Your task to perform on an android device: check data usage Image 0: 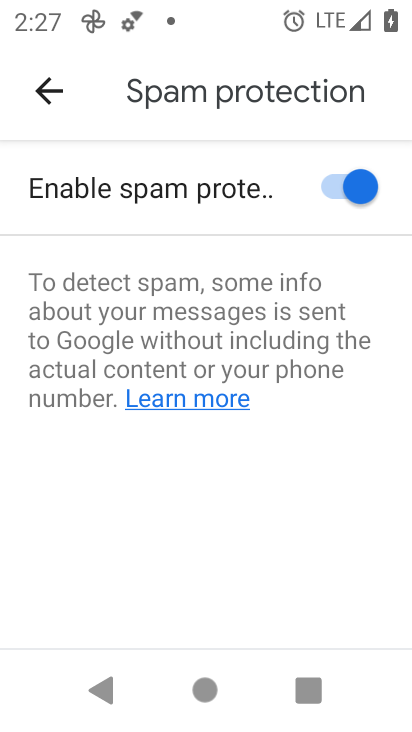
Step 0: press home button
Your task to perform on an android device: check data usage Image 1: 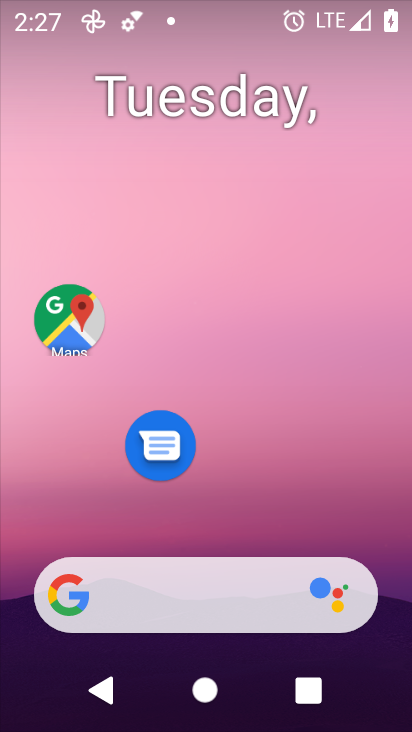
Step 1: drag from (263, 466) to (204, 114)
Your task to perform on an android device: check data usage Image 2: 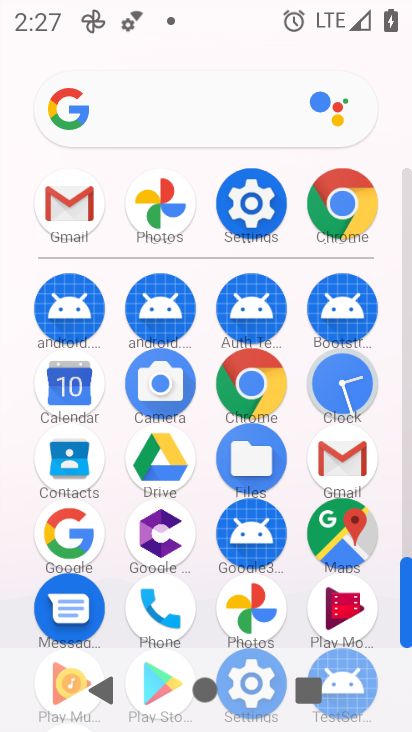
Step 2: click (251, 208)
Your task to perform on an android device: check data usage Image 3: 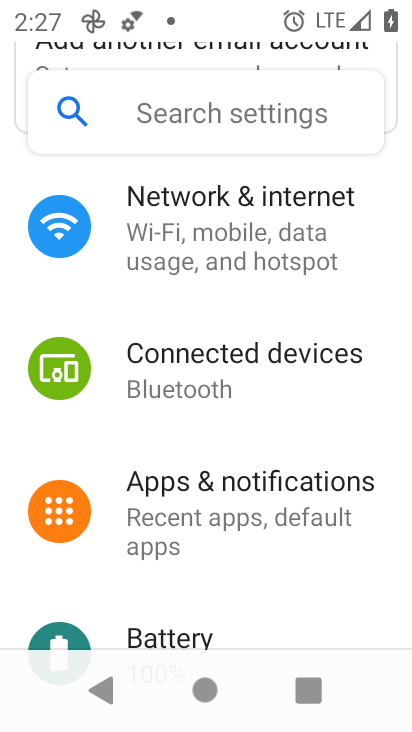
Step 3: click (263, 195)
Your task to perform on an android device: check data usage Image 4: 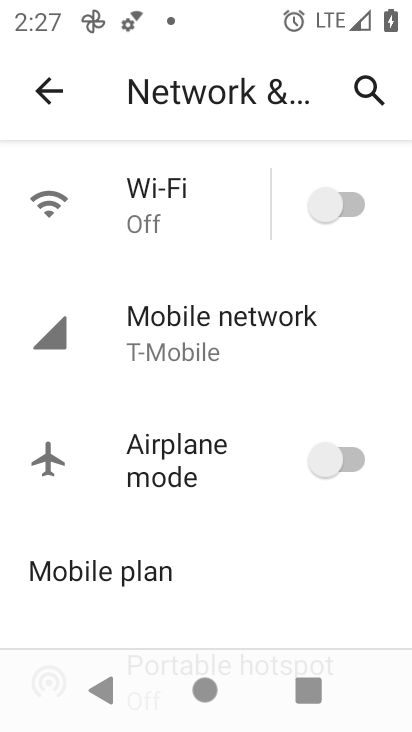
Step 4: click (208, 319)
Your task to perform on an android device: check data usage Image 5: 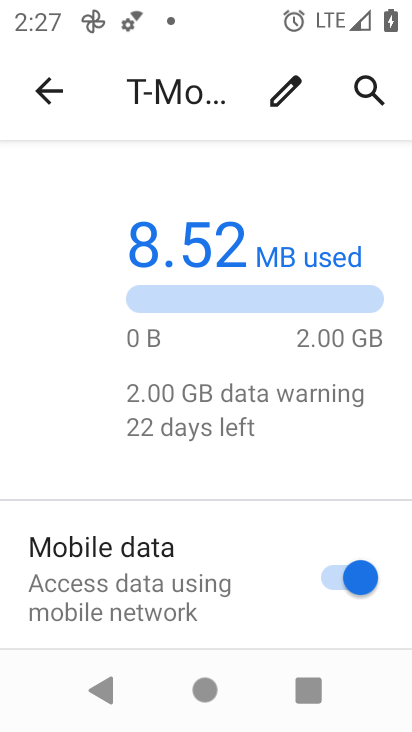
Step 5: task complete